Your task to perform on an android device: Open sound settings Image 0: 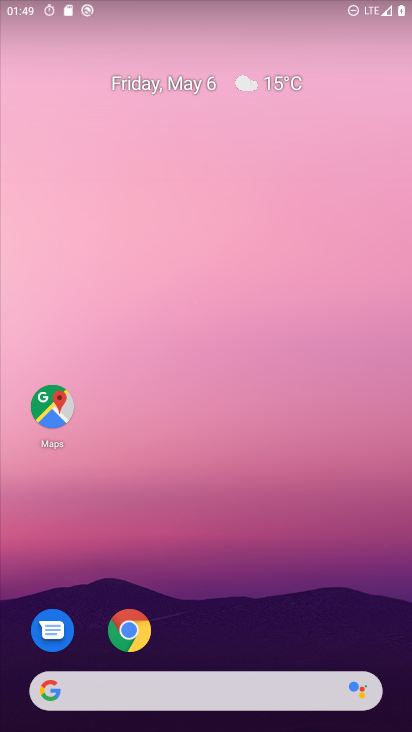
Step 0: drag from (324, 546) to (286, 33)
Your task to perform on an android device: Open sound settings Image 1: 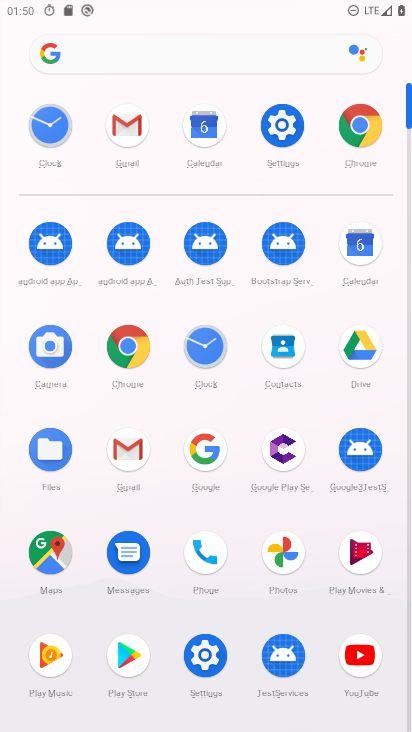
Step 1: click (271, 121)
Your task to perform on an android device: Open sound settings Image 2: 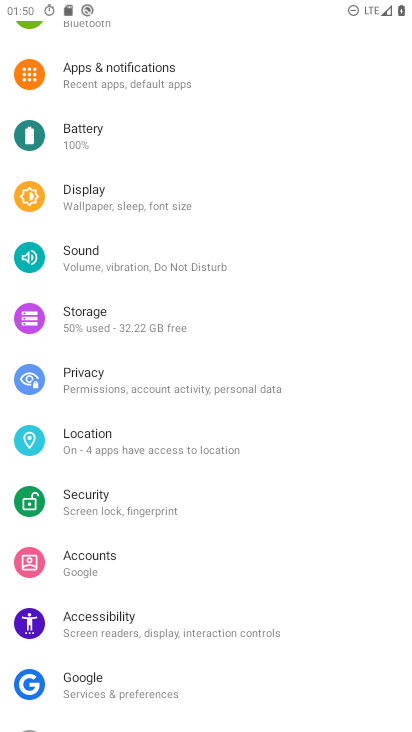
Step 2: click (159, 262)
Your task to perform on an android device: Open sound settings Image 3: 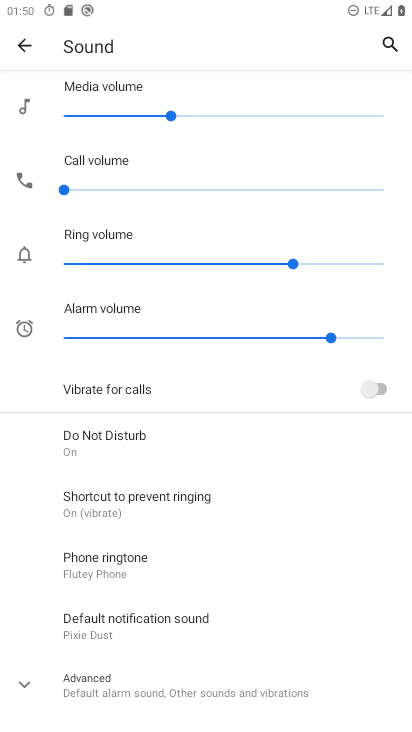
Step 3: task complete